Your task to perform on an android device: Show me popular videos on Youtube Image 0: 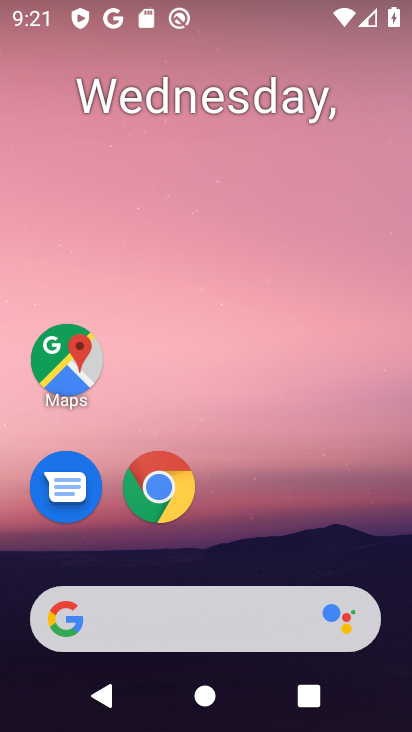
Step 0: drag from (212, 574) to (211, 143)
Your task to perform on an android device: Show me popular videos on Youtube Image 1: 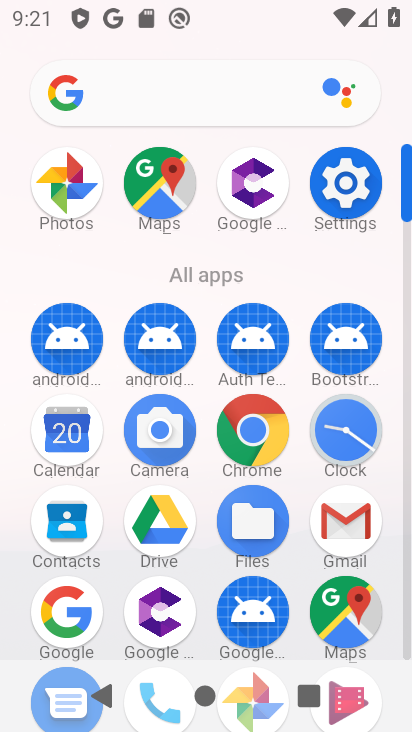
Step 1: drag from (199, 583) to (202, 406)
Your task to perform on an android device: Show me popular videos on Youtube Image 2: 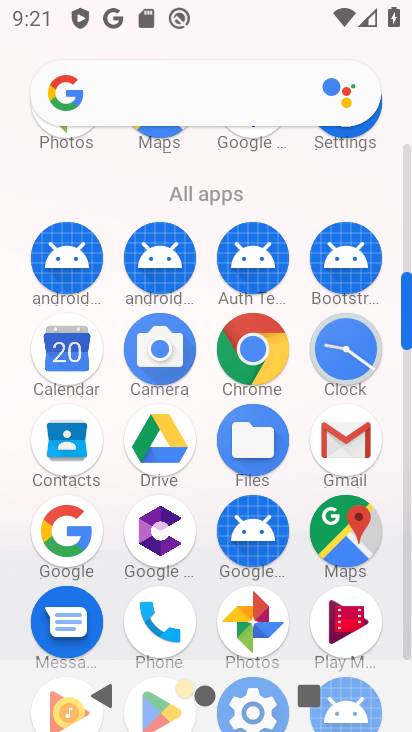
Step 2: drag from (201, 642) to (203, 243)
Your task to perform on an android device: Show me popular videos on Youtube Image 3: 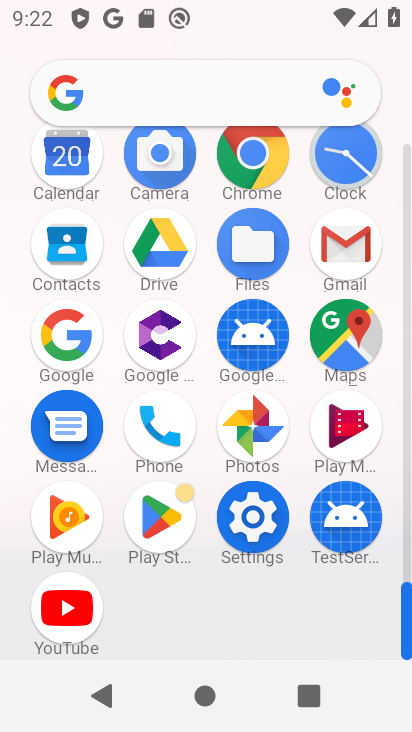
Step 3: click (66, 604)
Your task to perform on an android device: Show me popular videos on Youtube Image 4: 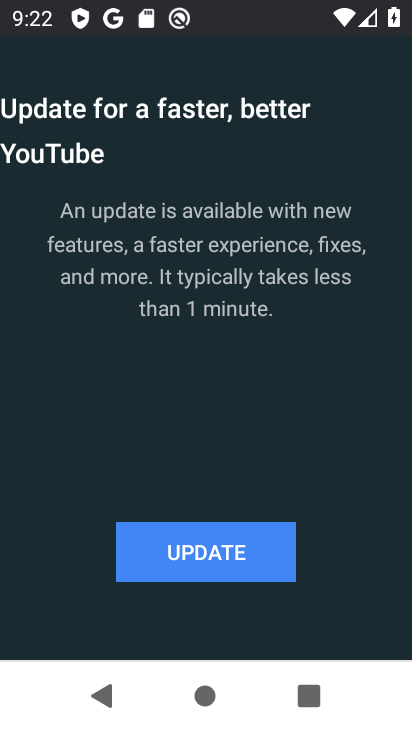
Step 4: click (172, 550)
Your task to perform on an android device: Show me popular videos on Youtube Image 5: 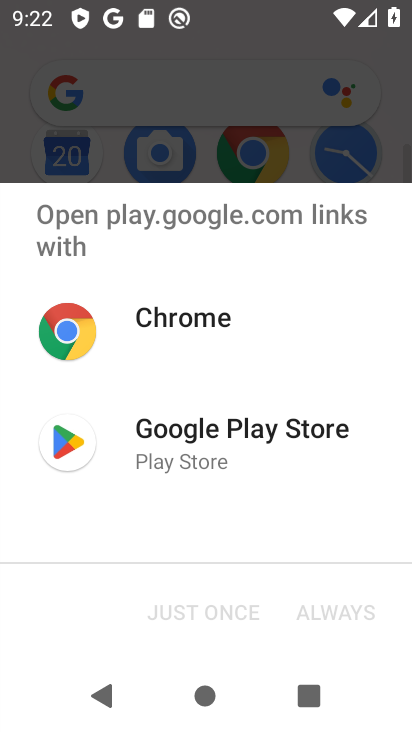
Step 5: click (187, 442)
Your task to perform on an android device: Show me popular videos on Youtube Image 6: 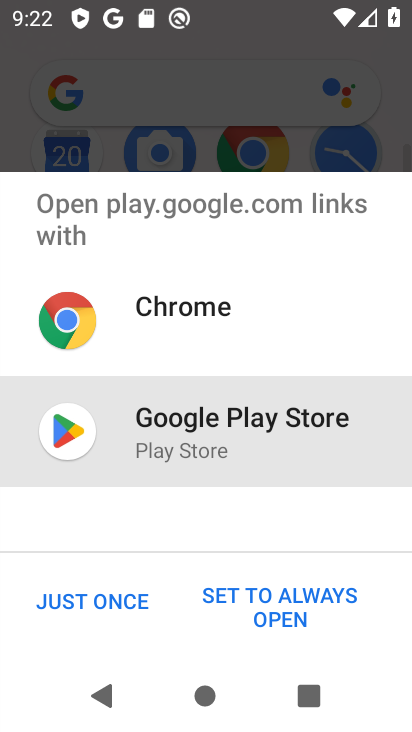
Step 6: click (123, 606)
Your task to perform on an android device: Show me popular videos on Youtube Image 7: 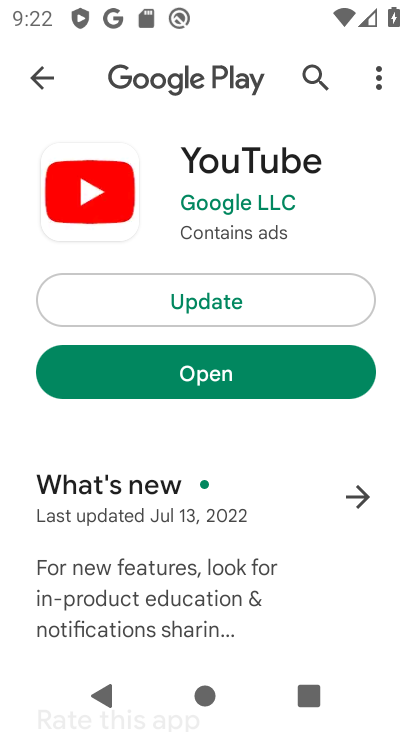
Step 7: click (201, 301)
Your task to perform on an android device: Show me popular videos on Youtube Image 8: 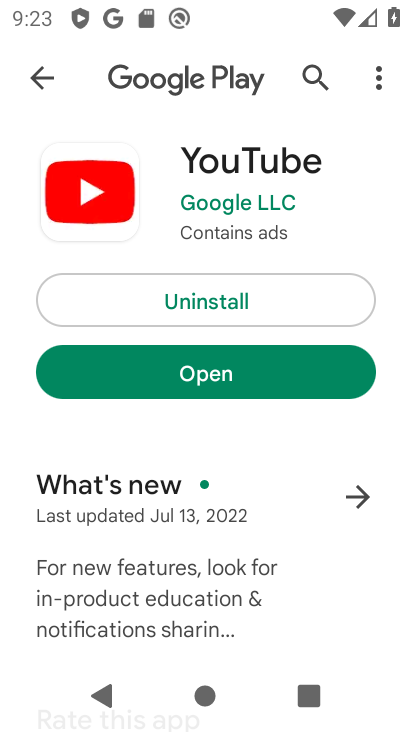
Step 8: click (241, 373)
Your task to perform on an android device: Show me popular videos on Youtube Image 9: 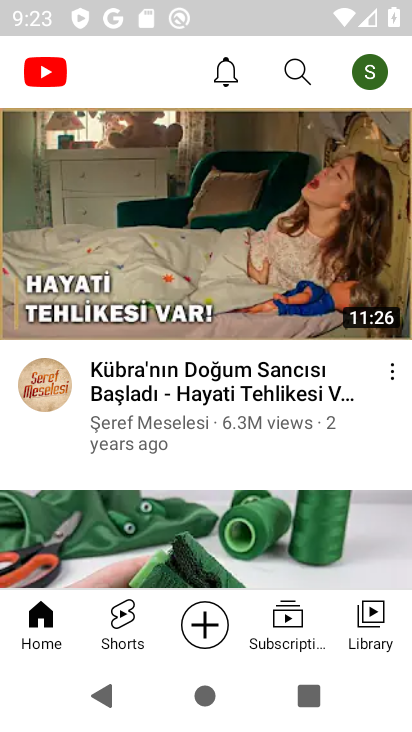
Step 9: task complete